Your task to perform on an android device: turn off notifications in google photos Image 0: 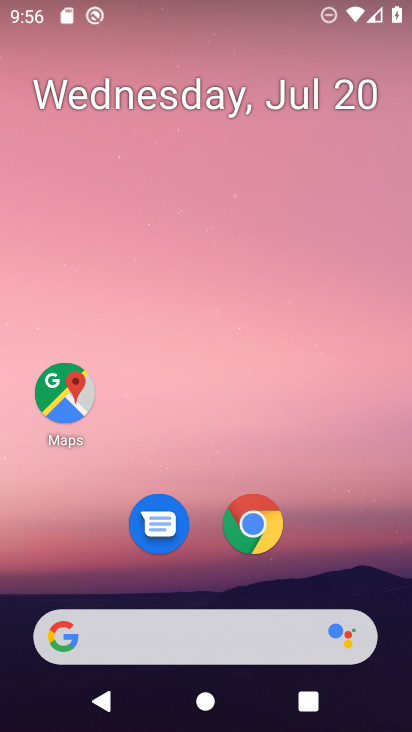
Step 0: drag from (170, 645) to (257, 107)
Your task to perform on an android device: turn off notifications in google photos Image 1: 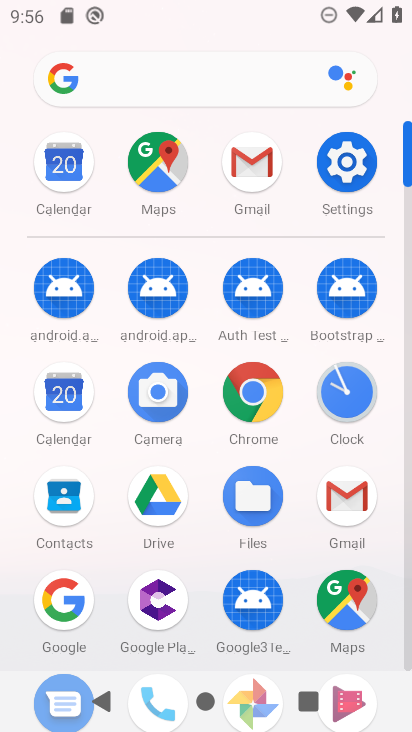
Step 1: drag from (208, 600) to (298, 105)
Your task to perform on an android device: turn off notifications in google photos Image 2: 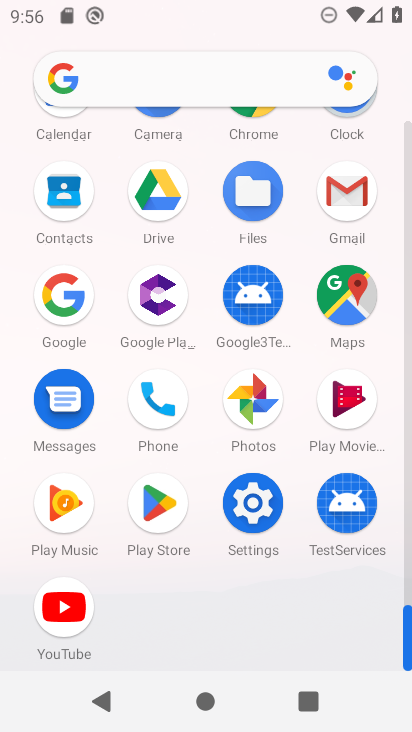
Step 2: click (253, 393)
Your task to perform on an android device: turn off notifications in google photos Image 3: 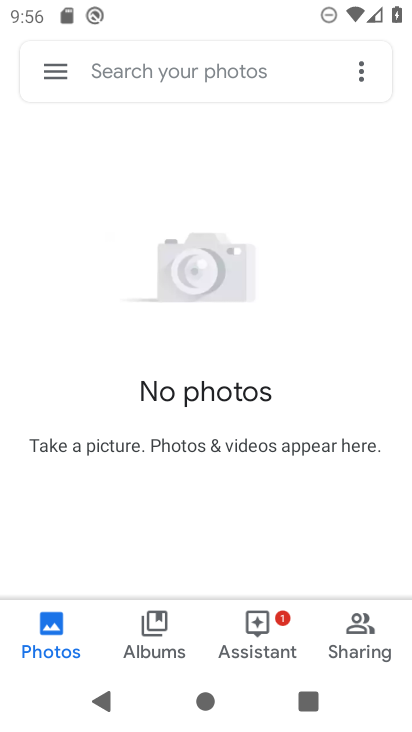
Step 3: click (55, 63)
Your task to perform on an android device: turn off notifications in google photos Image 4: 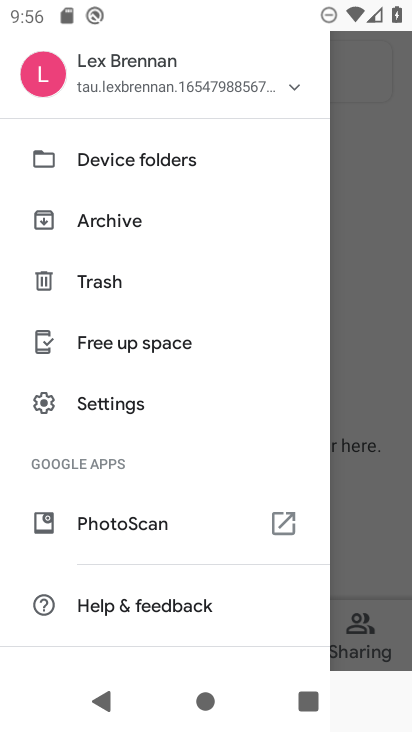
Step 4: click (107, 407)
Your task to perform on an android device: turn off notifications in google photos Image 5: 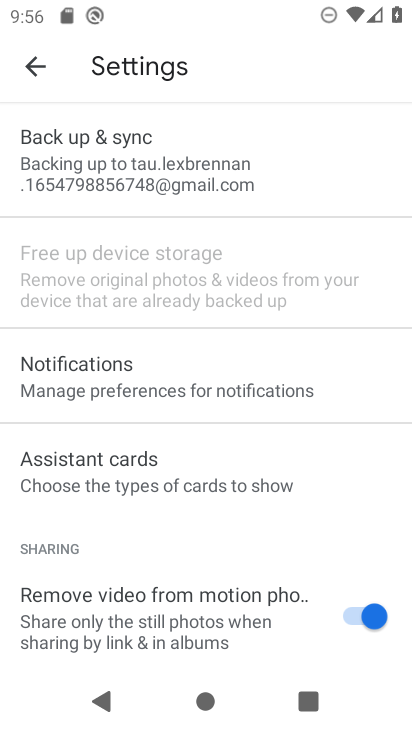
Step 5: click (134, 377)
Your task to perform on an android device: turn off notifications in google photos Image 6: 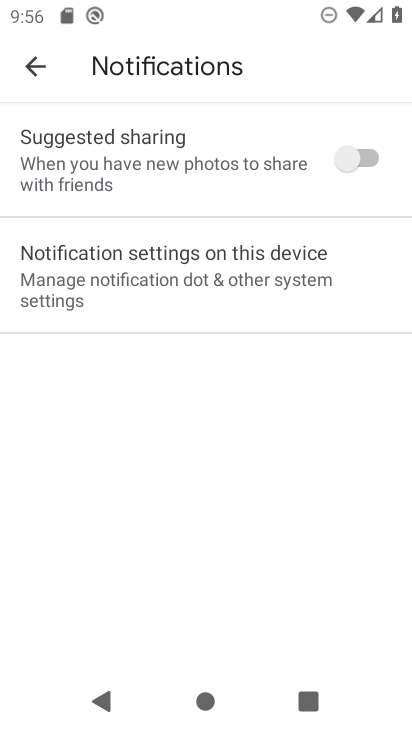
Step 6: click (162, 286)
Your task to perform on an android device: turn off notifications in google photos Image 7: 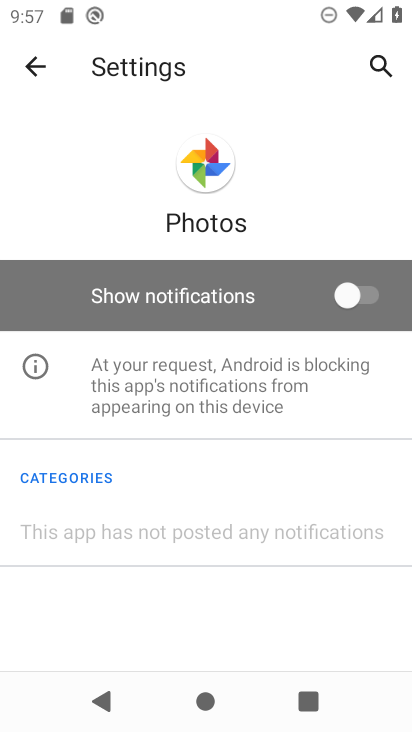
Step 7: task complete